Your task to perform on an android device: change notification settings in the gmail app Image 0: 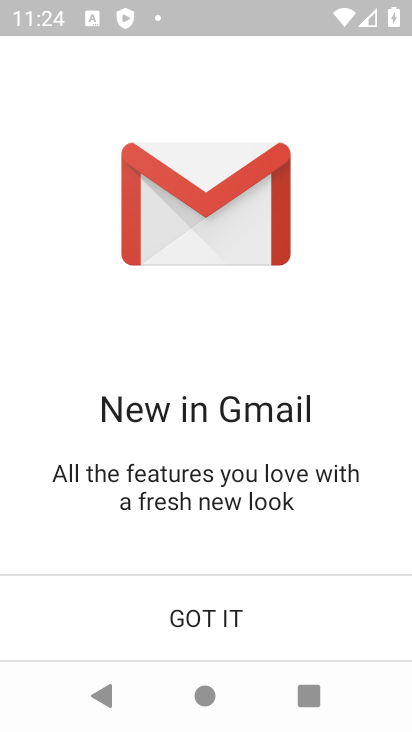
Step 0: press home button
Your task to perform on an android device: change notification settings in the gmail app Image 1: 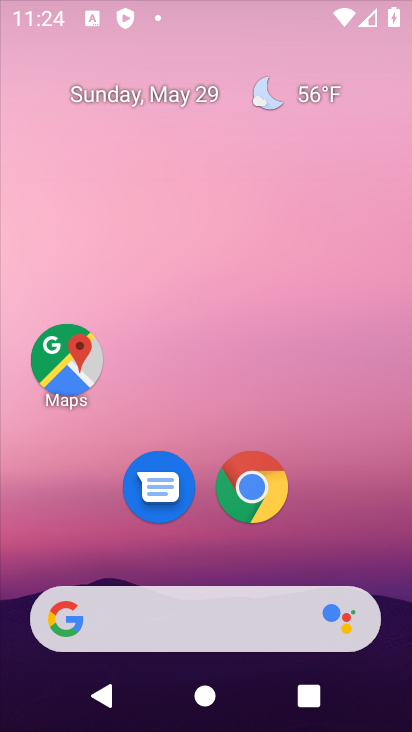
Step 1: drag from (234, 602) to (285, 59)
Your task to perform on an android device: change notification settings in the gmail app Image 2: 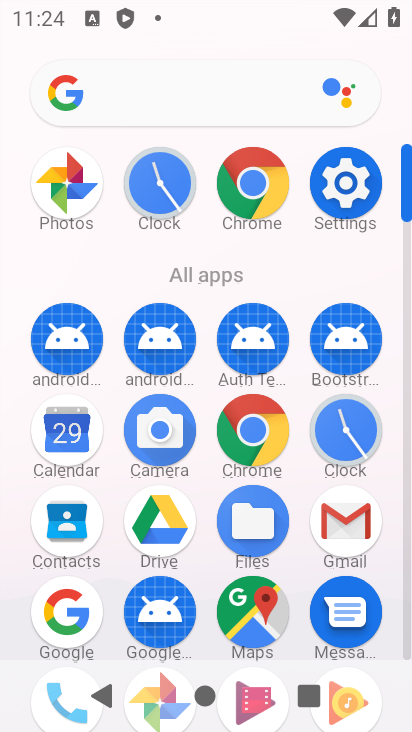
Step 2: click (360, 529)
Your task to perform on an android device: change notification settings in the gmail app Image 3: 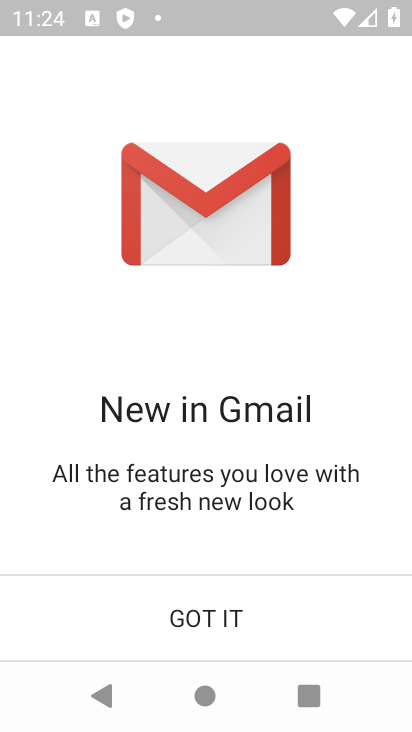
Step 3: click (217, 632)
Your task to perform on an android device: change notification settings in the gmail app Image 4: 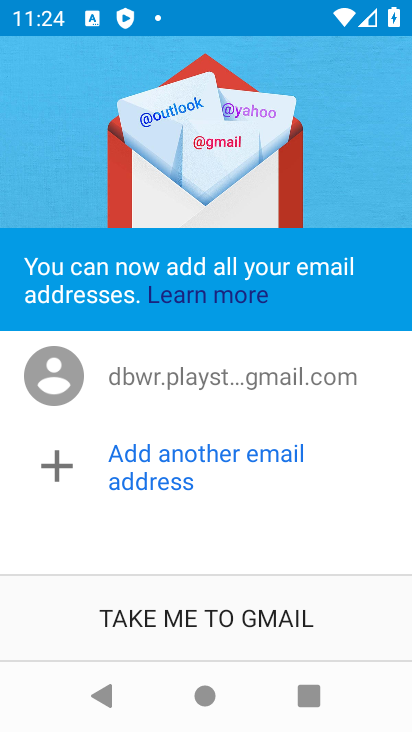
Step 4: click (221, 625)
Your task to perform on an android device: change notification settings in the gmail app Image 5: 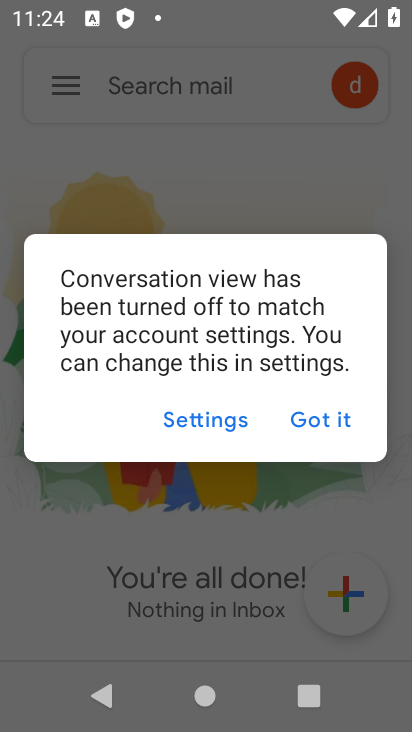
Step 5: click (306, 417)
Your task to perform on an android device: change notification settings in the gmail app Image 6: 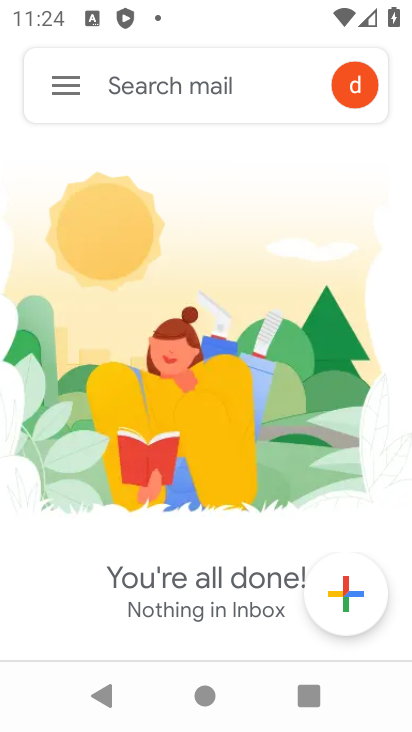
Step 6: click (76, 83)
Your task to perform on an android device: change notification settings in the gmail app Image 7: 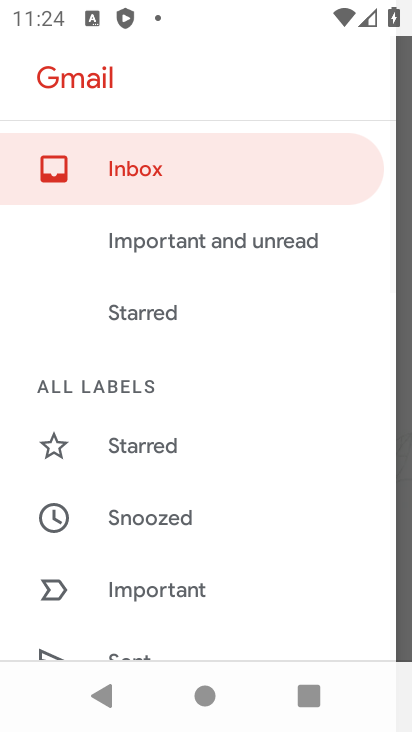
Step 7: drag from (149, 542) to (205, 150)
Your task to perform on an android device: change notification settings in the gmail app Image 8: 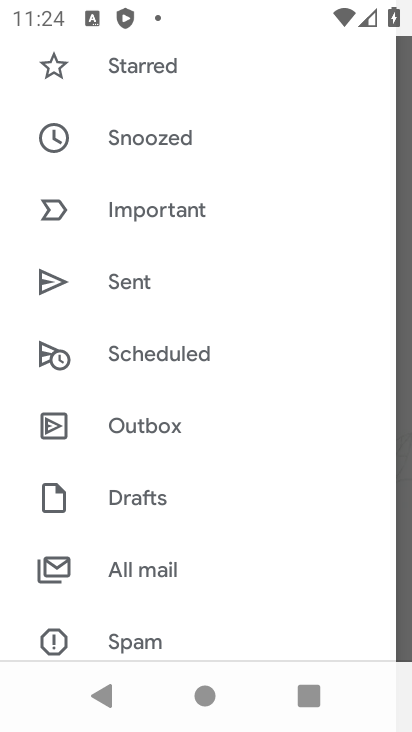
Step 8: drag from (200, 531) to (258, 234)
Your task to perform on an android device: change notification settings in the gmail app Image 9: 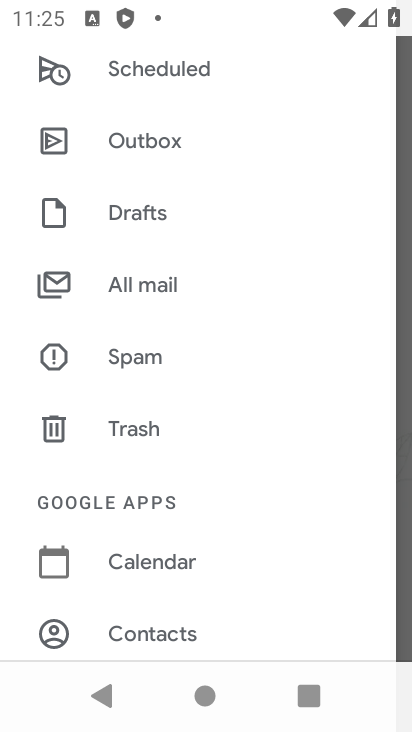
Step 9: drag from (212, 520) to (295, 231)
Your task to perform on an android device: change notification settings in the gmail app Image 10: 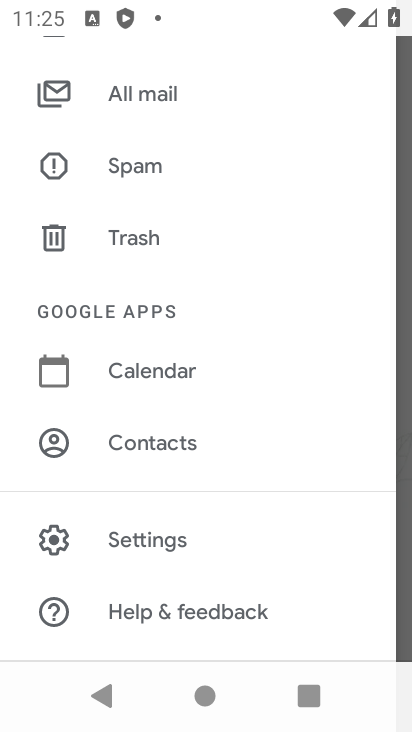
Step 10: click (144, 536)
Your task to perform on an android device: change notification settings in the gmail app Image 11: 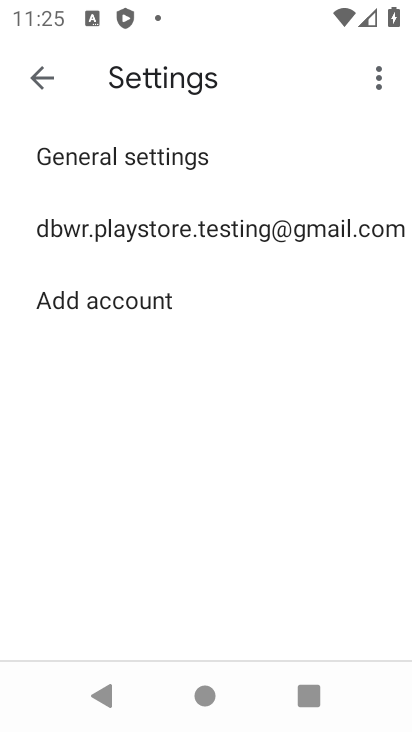
Step 11: click (95, 156)
Your task to perform on an android device: change notification settings in the gmail app Image 12: 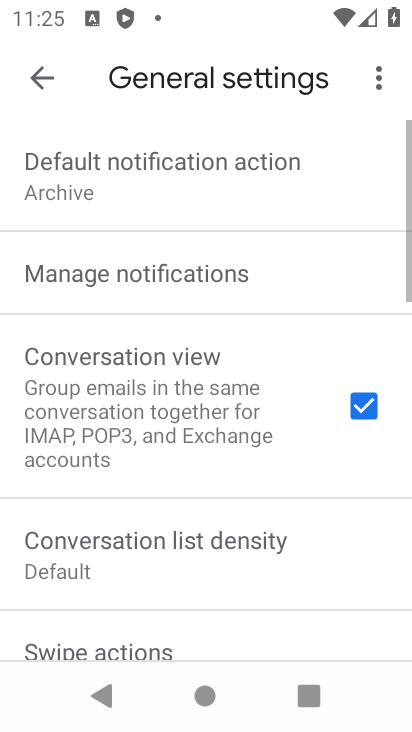
Step 12: click (106, 274)
Your task to perform on an android device: change notification settings in the gmail app Image 13: 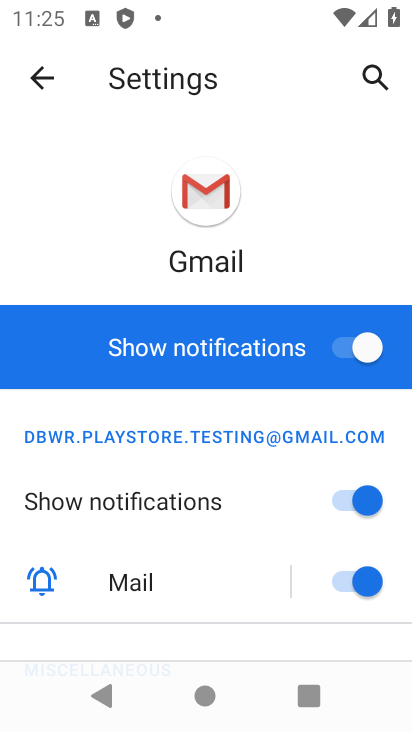
Step 13: click (335, 350)
Your task to perform on an android device: change notification settings in the gmail app Image 14: 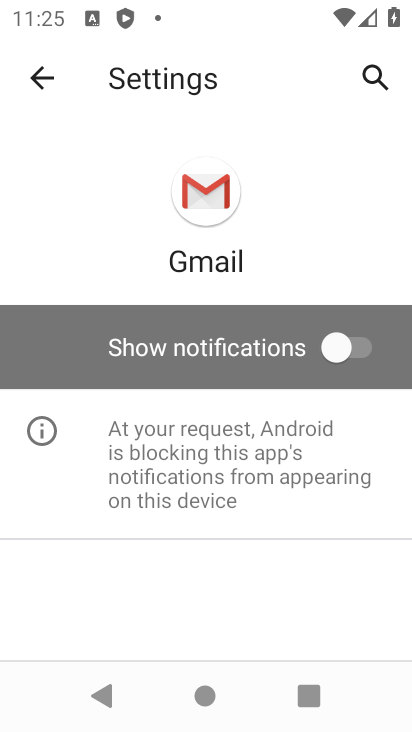
Step 14: task complete